Your task to perform on an android device: turn pop-ups off in chrome Image 0: 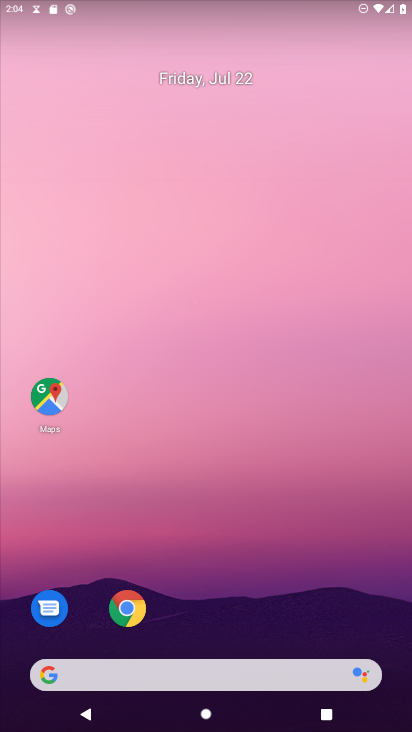
Step 0: click (137, 610)
Your task to perform on an android device: turn pop-ups off in chrome Image 1: 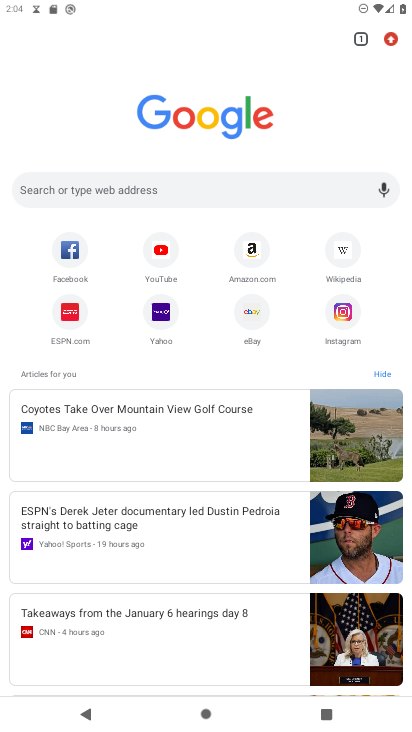
Step 1: click (393, 45)
Your task to perform on an android device: turn pop-ups off in chrome Image 2: 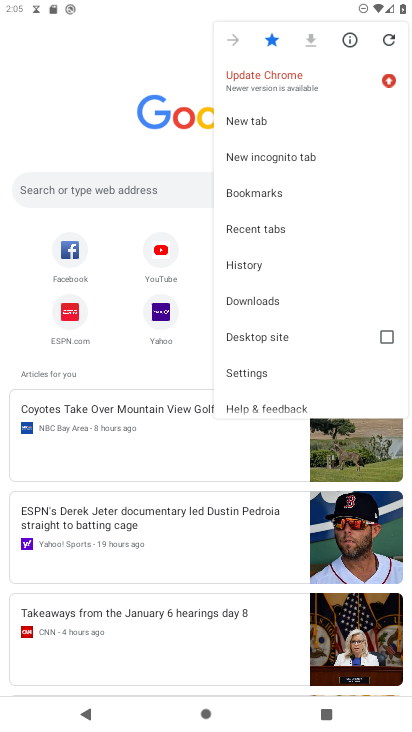
Step 2: click (274, 377)
Your task to perform on an android device: turn pop-ups off in chrome Image 3: 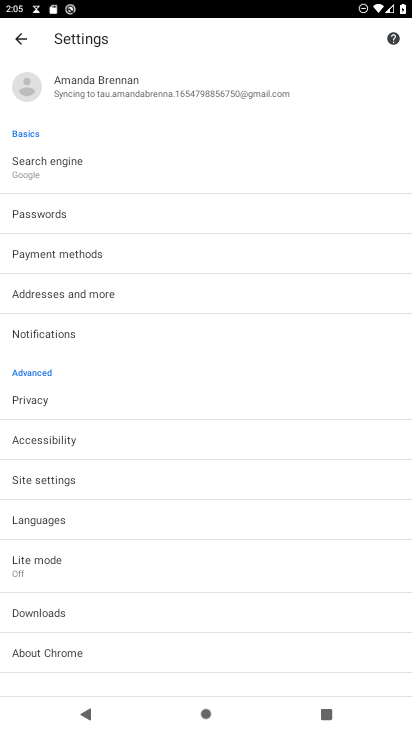
Step 3: click (214, 483)
Your task to perform on an android device: turn pop-ups off in chrome Image 4: 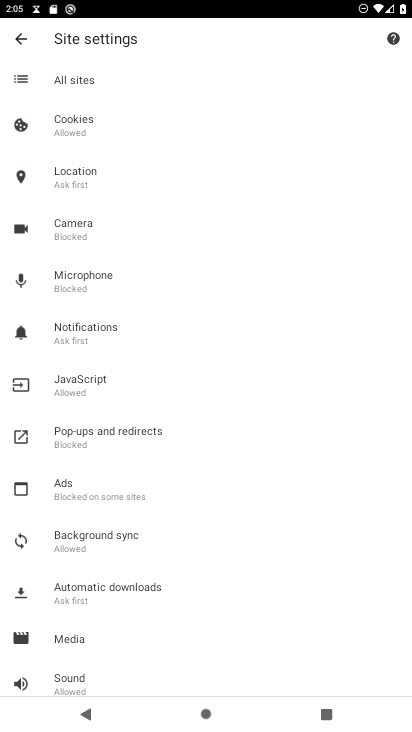
Step 4: click (86, 436)
Your task to perform on an android device: turn pop-ups off in chrome Image 5: 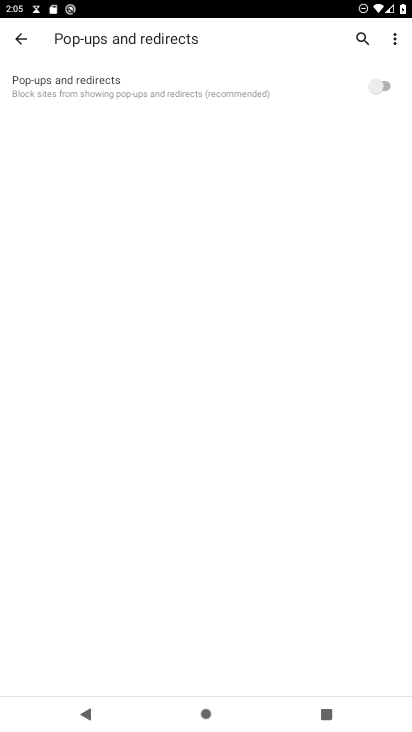
Step 5: task complete